Your task to perform on an android device: Open ESPN.com Image 0: 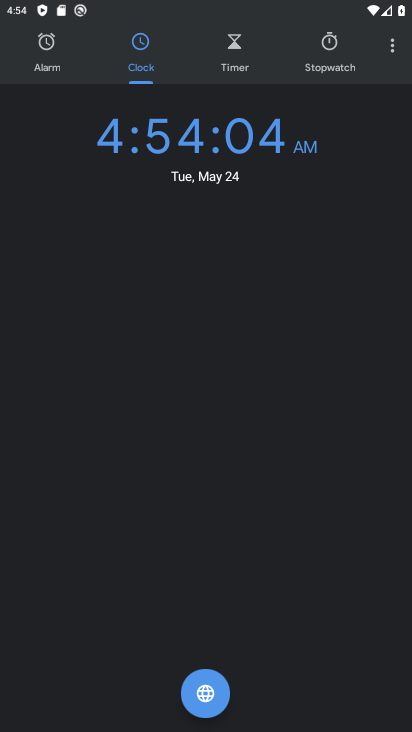
Step 0: press home button
Your task to perform on an android device: Open ESPN.com Image 1: 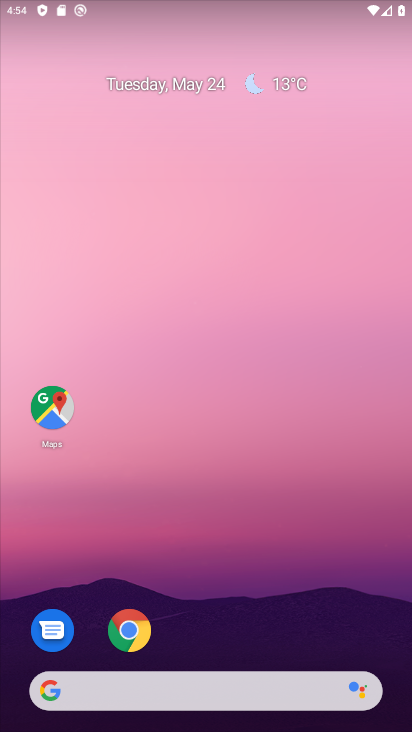
Step 1: click (126, 644)
Your task to perform on an android device: Open ESPN.com Image 2: 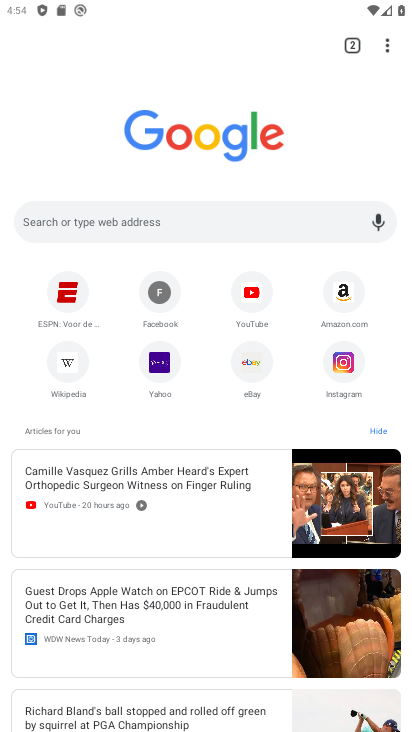
Step 2: click (74, 313)
Your task to perform on an android device: Open ESPN.com Image 3: 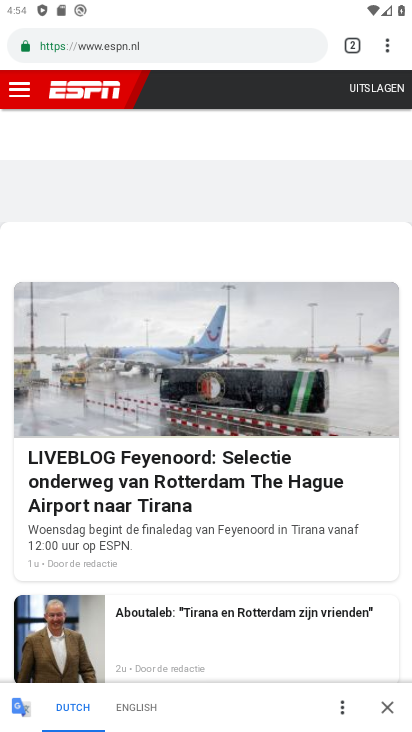
Step 3: task complete